Your task to perform on an android device: Do I have any events today? Image 0: 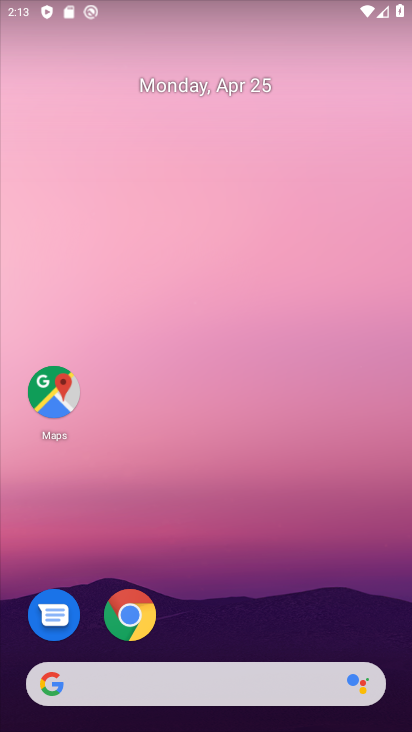
Step 0: drag from (226, 693) to (197, 54)
Your task to perform on an android device: Do I have any events today? Image 1: 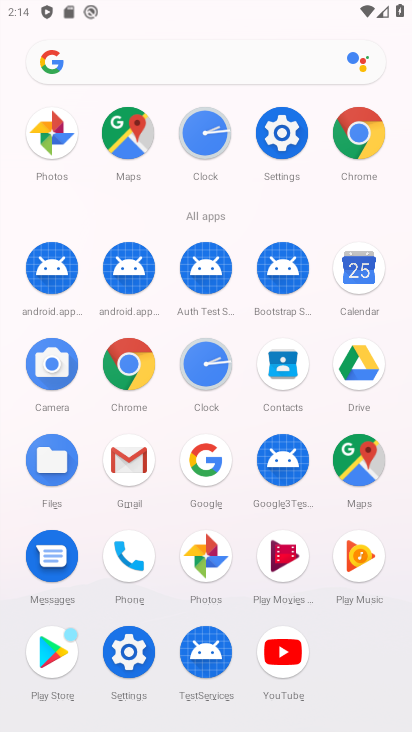
Step 1: click (353, 271)
Your task to perform on an android device: Do I have any events today? Image 2: 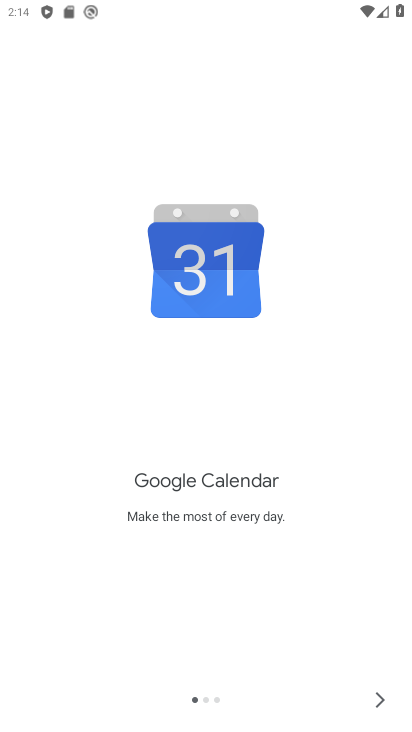
Step 2: click (382, 698)
Your task to perform on an android device: Do I have any events today? Image 3: 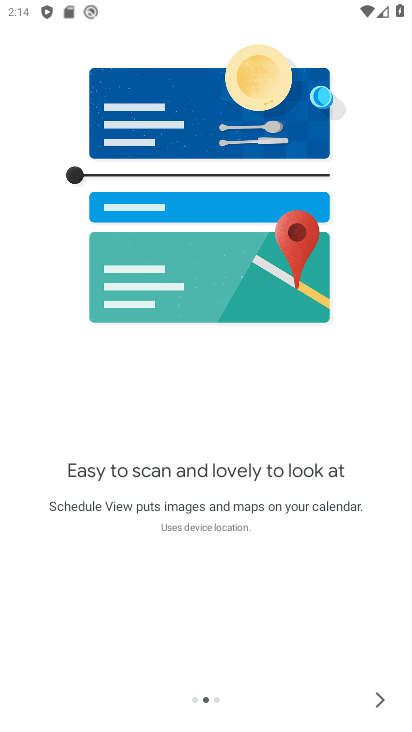
Step 3: click (382, 694)
Your task to perform on an android device: Do I have any events today? Image 4: 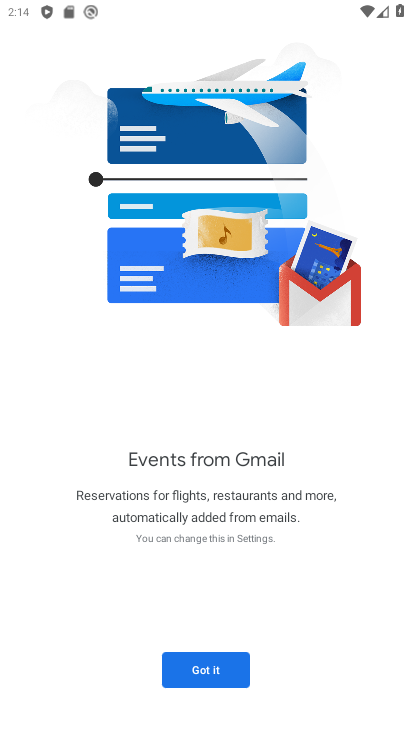
Step 4: click (204, 669)
Your task to perform on an android device: Do I have any events today? Image 5: 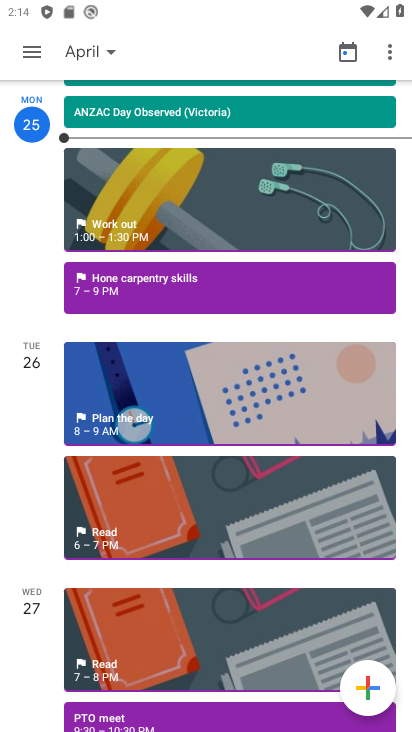
Step 5: click (31, 52)
Your task to perform on an android device: Do I have any events today? Image 6: 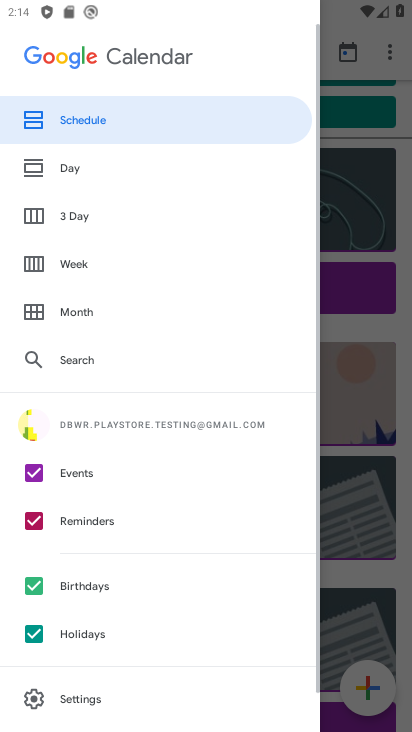
Step 6: click (30, 635)
Your task to perform on an android device: Do I have any events today? Image 7: 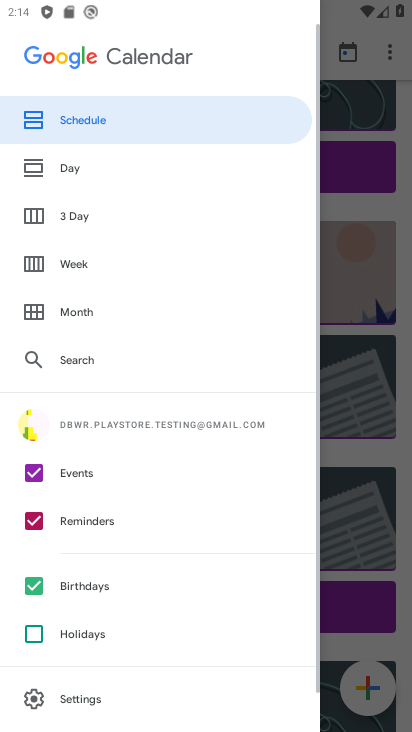
Step 7: click (37, 585)
Your task to perform on an android device: Do I have any events today? Image 8: 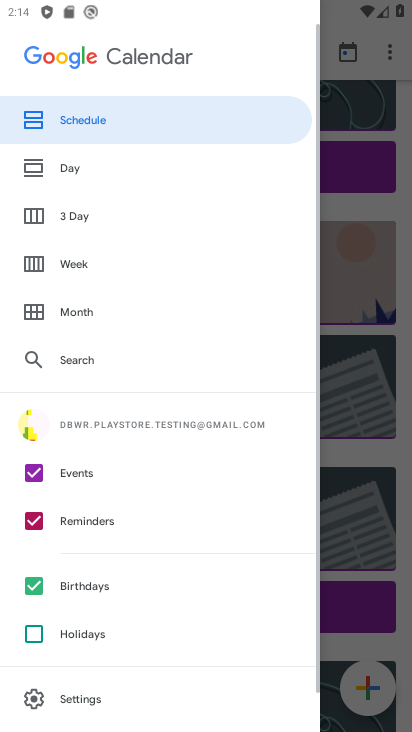
Step 8: click (33, 582)
Your task to perform on an android device: Do I have any events today? Image 9: 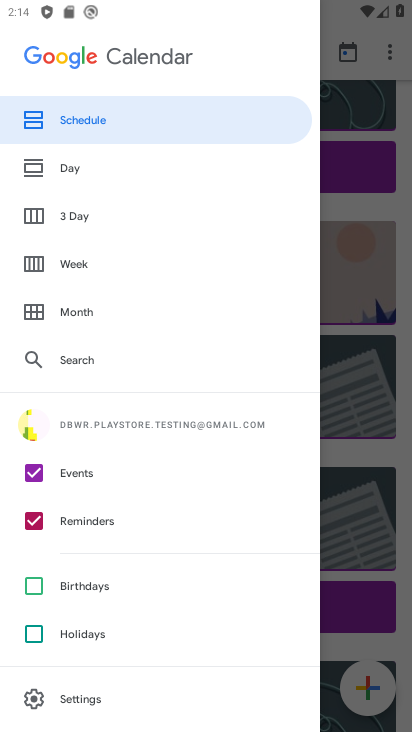
Step 9: click (36, 517)
Your task to perform on an android device: Do I have any events today? Image 10: 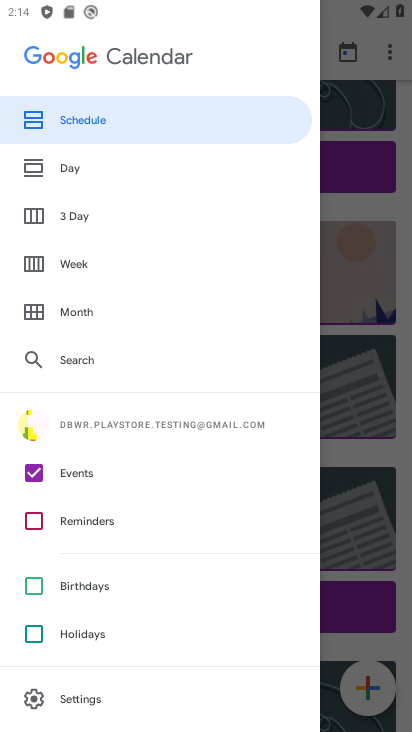
Step 10: click (327, 69)
Your task to perform on an android device: Do I have any events today? Image 11: 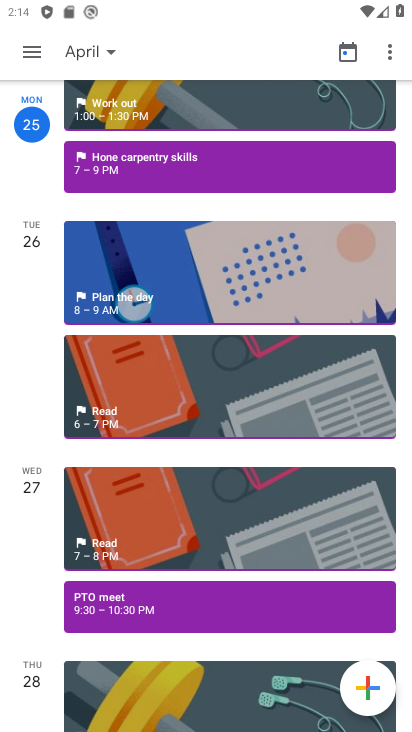
Step 11: task complete